Your task to perform on an android device: Open ESPN.com Image 0: 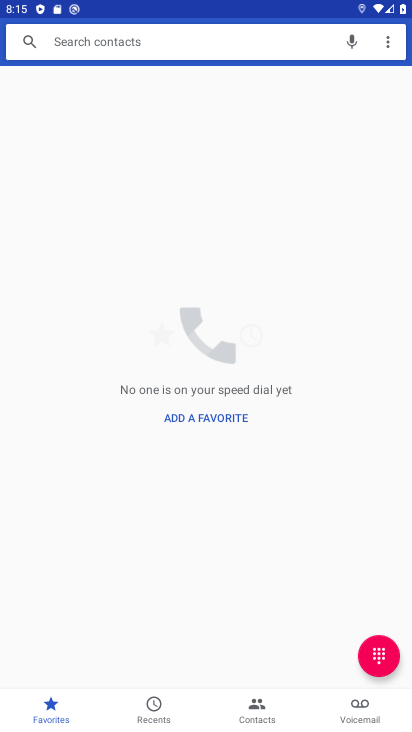
Step 0: drag from (183, 656) to (222, 302)
Your task to perform on an android device: Open ESPN.com Image 1: 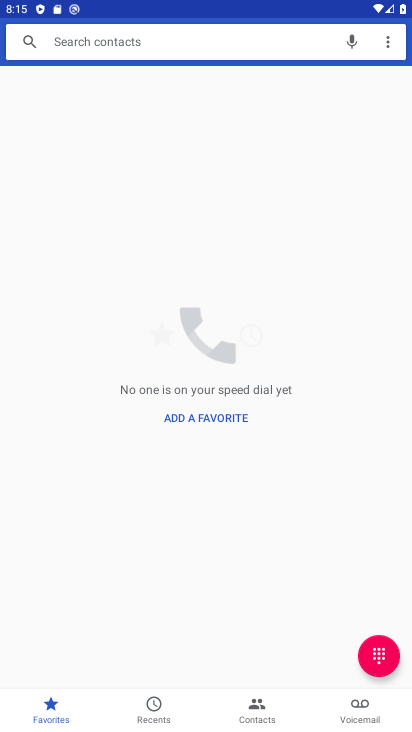
Step 1: drag from (203, 615) to (234, 313)
Your task to perform on an android device: Open ESPN.com Image 2: 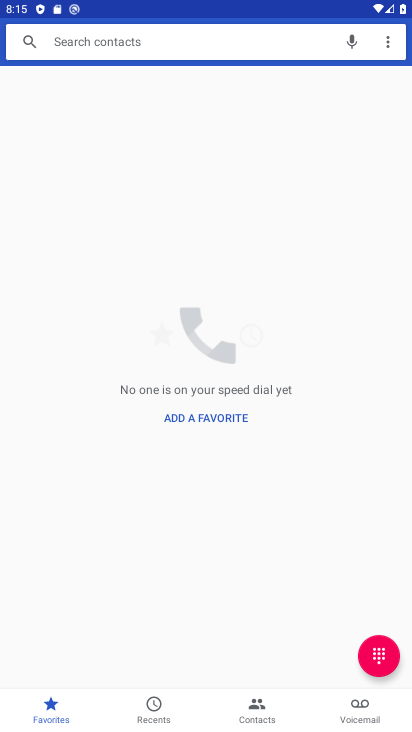
Step 2: press home button
Your task to perform on an android device: Open ESPN.com Image 3: 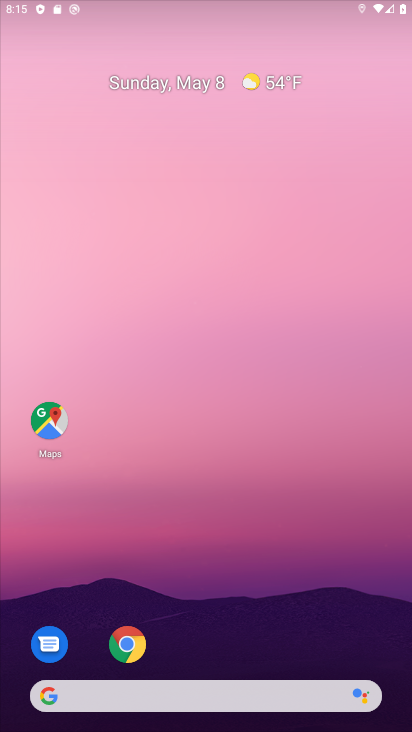
Step 3: drag from (204, 564) to (246, 156)
Your task to perform on an android device: Open ESPN.com Image 4: 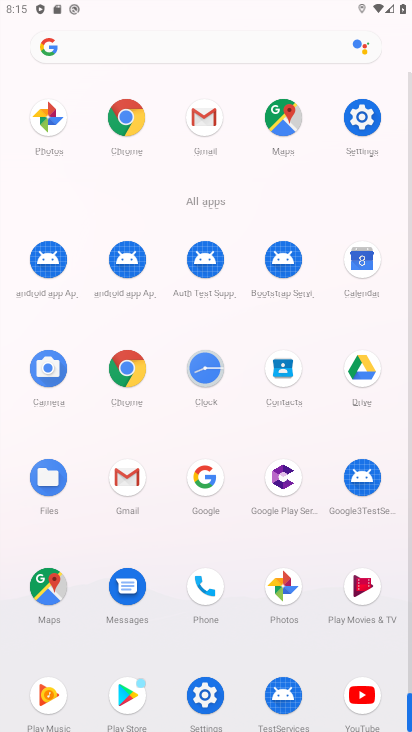
Step 4: click (123, 118)
Your task to perform on an android device: Open ESPN.com Image 5: 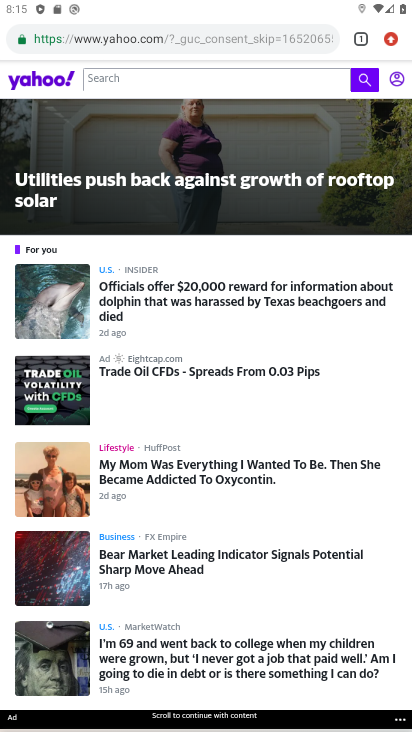
Step 5: click (233, 43)
Your task to perform on an android device: Open ESPN.com Image 6: 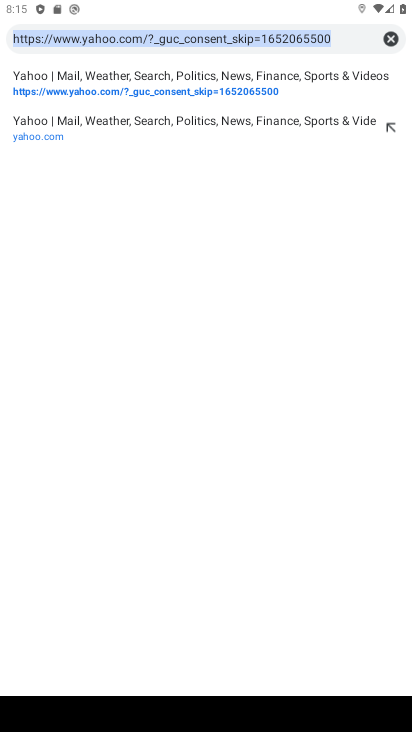
Step 6: click (388, 42)
Your task to perform on an android device: Open ESPN.com Image 7: 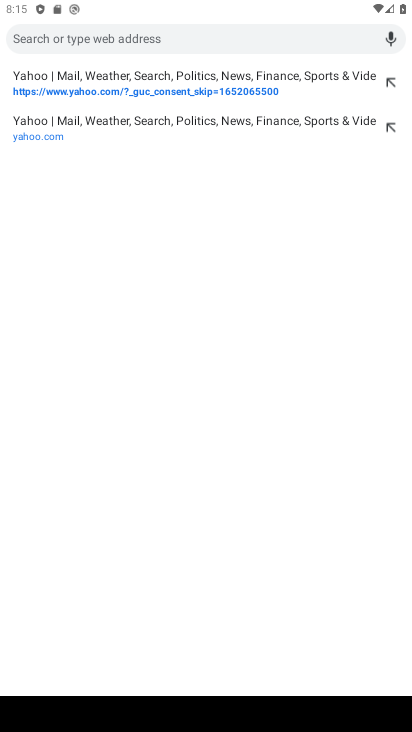
Step 7: type "espn"
Your task to perform on an android device: Open ESPN.com Image 8: 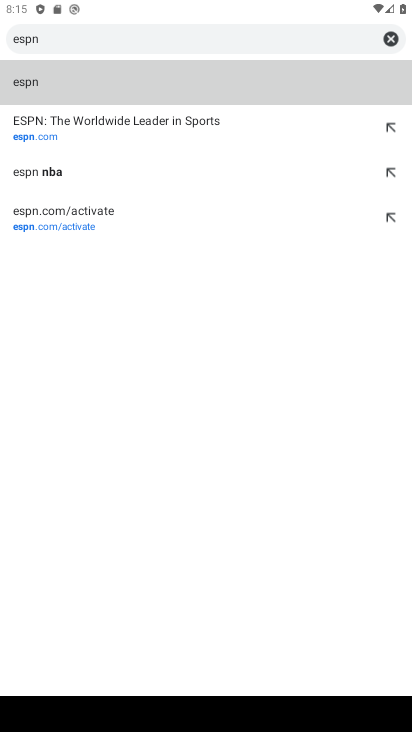
Step 8: click (48, 87)
Your task to perform on an android device: Open ESPN.com Image 9: 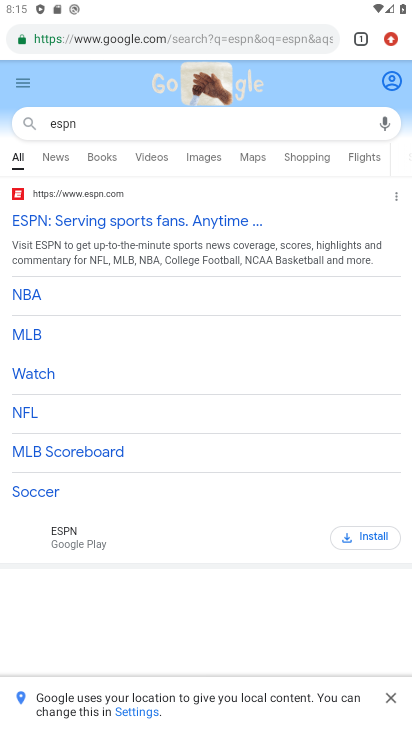
Step 9: click (65, 221)
Your task to perform on an android device: Open ESPN.com Image 10: 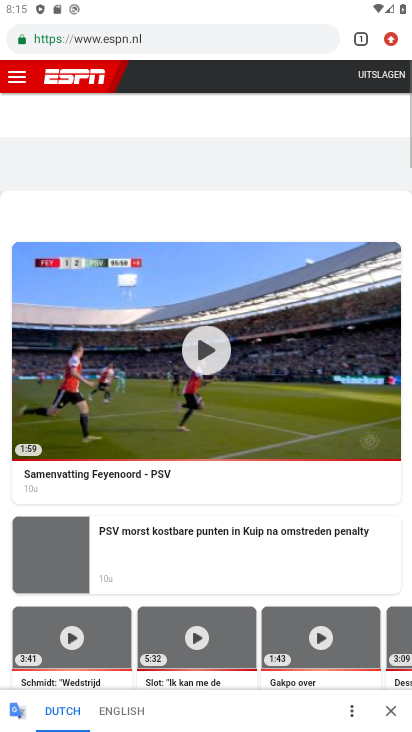
Step 10: task complete